Your task to perform on an android device: open app "Google Photos" (install if not already installed) Image 0: 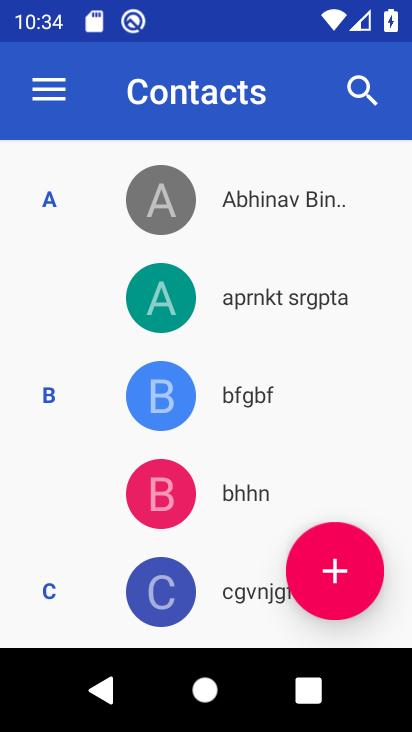
Step 0: press home button
Your task to perform on an android device: open app "Google Photos" (install if not already installed) Image 1: 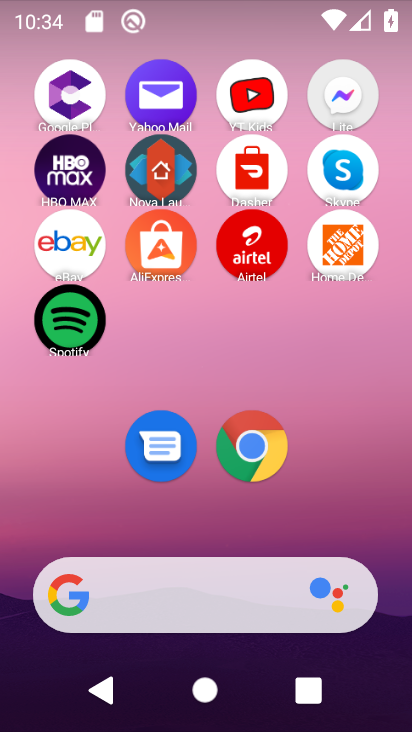
Step 1: drag from (219, 517) to (235, 190)
Your task to perform on an android device: open app "Google Photos" (install if not already installed) Image 2: 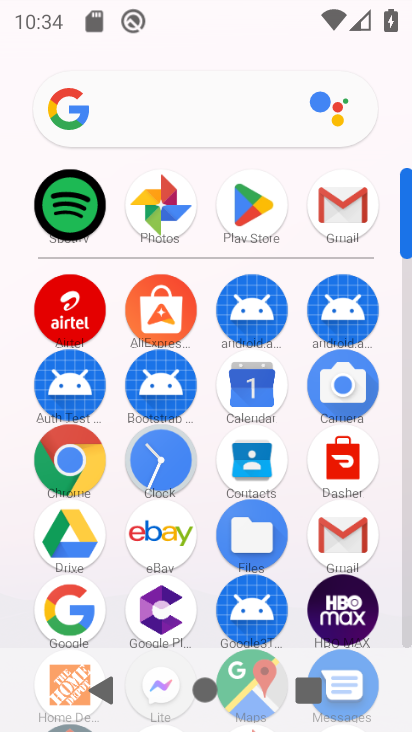
Step 2: click (254, 201)
Your task to perform on an android device: open app "Google Photos" (install if not already installed) Image 3: 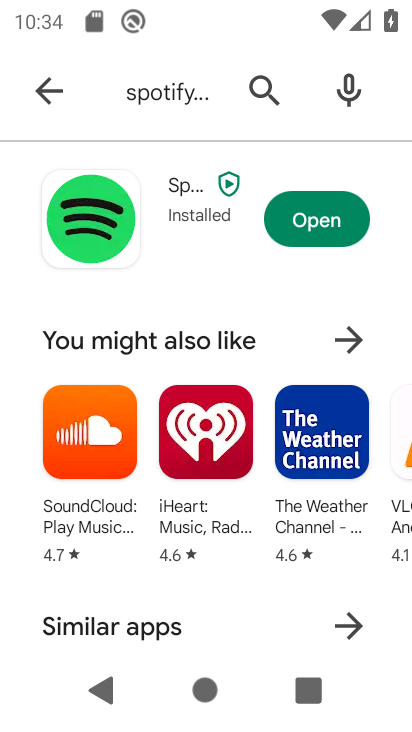
Step 3: click (269, 87)
Your task to perform on an android device: open app "Google Photos" (install if not already installed) Image 4: 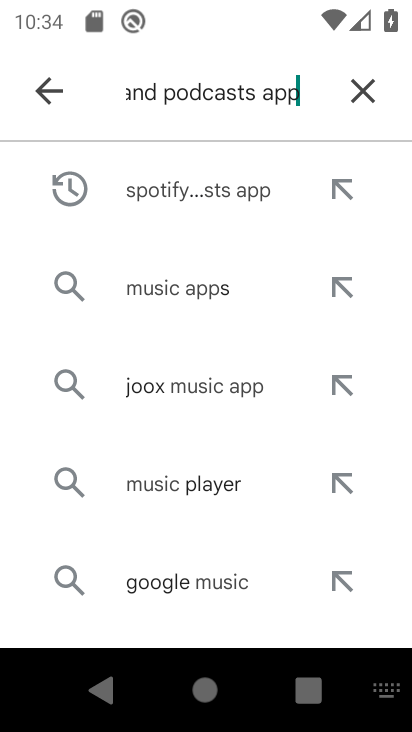
Step 4: type "Google Photos"
Your task to perform on an android device: open app "Google Photos" (install if not already installed) Image 5: 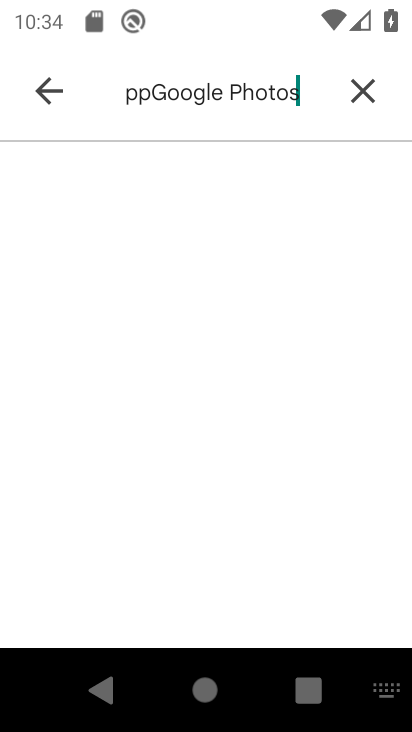
Step 5: click (359, 85)
Your task to perform on an android device: open app "Google Photos" (install if not already installed) Image 6: 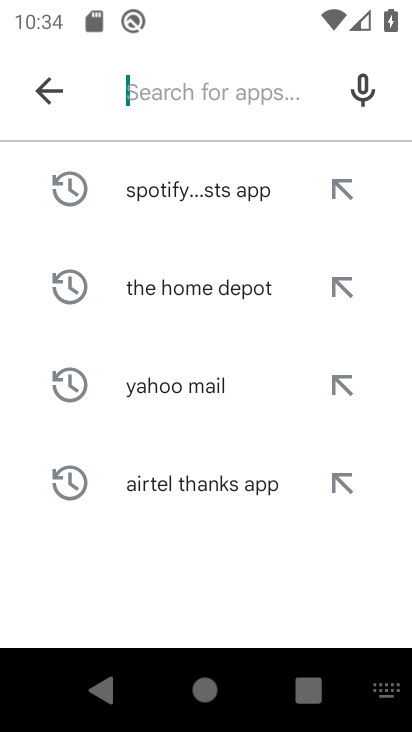
Step 6: type "Google Photo"
Your task to perform on an android device: open app "Google Photos" (install if not already installed) Image 7: 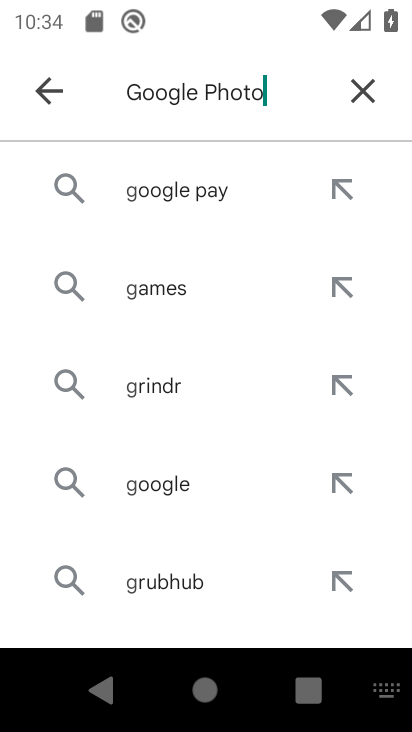
Step 7: type ""
Your task to perform on an android device: open app "Google Photos" (install if not already installed) Image 8: 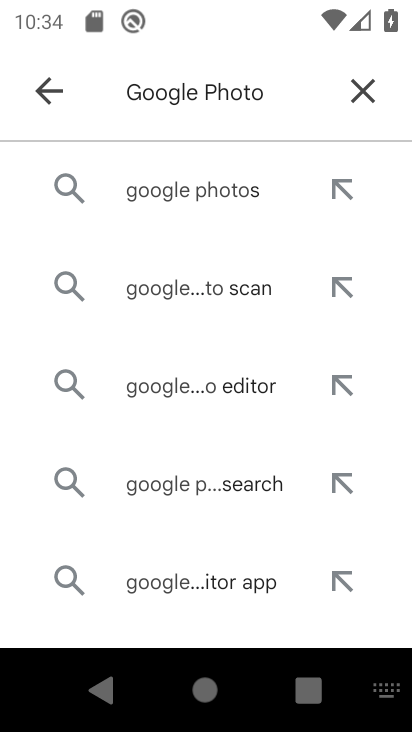
Step 8: click (263, 186)
Your task to perform on an android device: open app "Google Photos" (install if not already installed) Image 9: 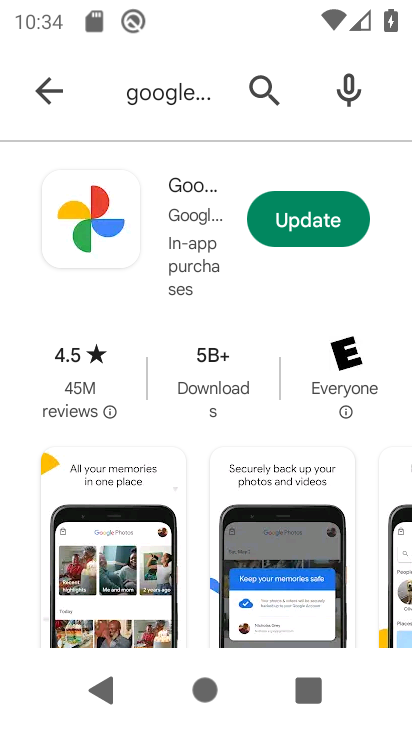
Step 9: click (199, 203)
Your task to perform on an android device: open app "Google Photos" (install if not already installed) Image 10: 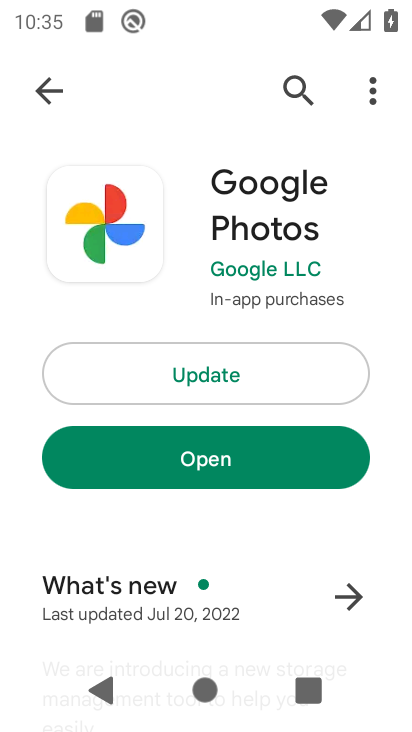
Step 10: click (248, 436)
Your task to perform on an android device: open app "Google Photos" (install if not already installed) Image 11: 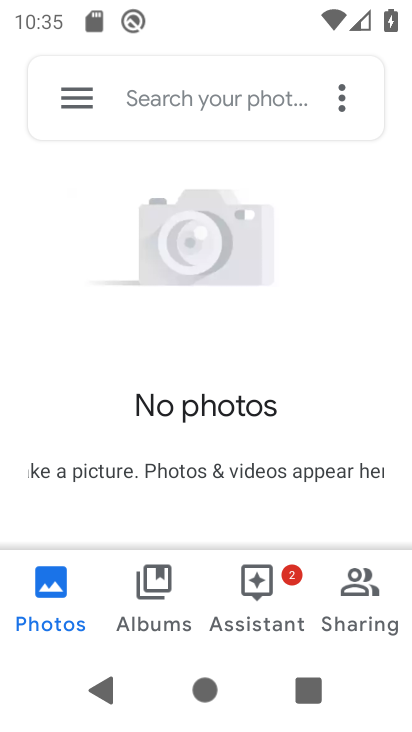
Step 11: task complete